Your task to perform on an android device: turn off notifications in google photos Image 0: 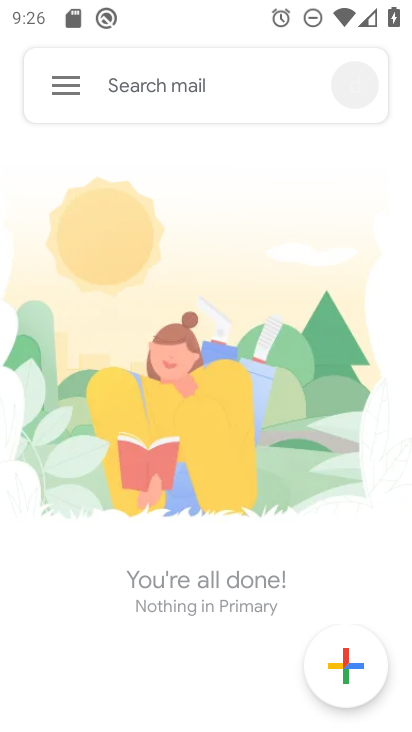
Step 0: press home button
Your task to perform on an android device: turn off notifications in google photos Image 1: 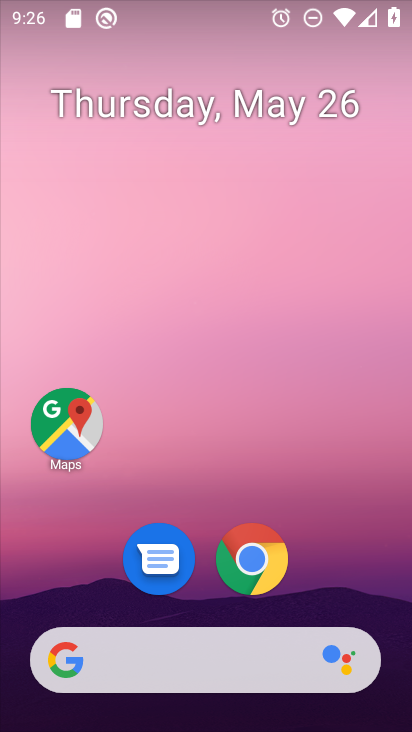
Step 1: drag from (329, 467) to (297, 153)
Your task to perform on an android device: turn off notifications in google photos Image 2: 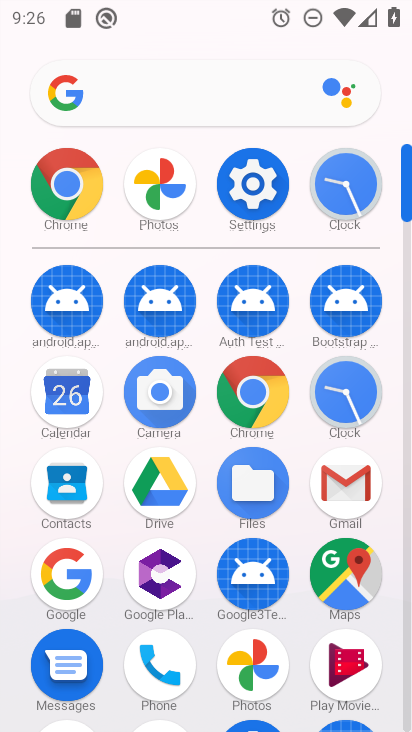
Step 2: drag from (205, 433) to (222, 147)
Your task to perform on an android device: turn off notifications in google photos Image 3: 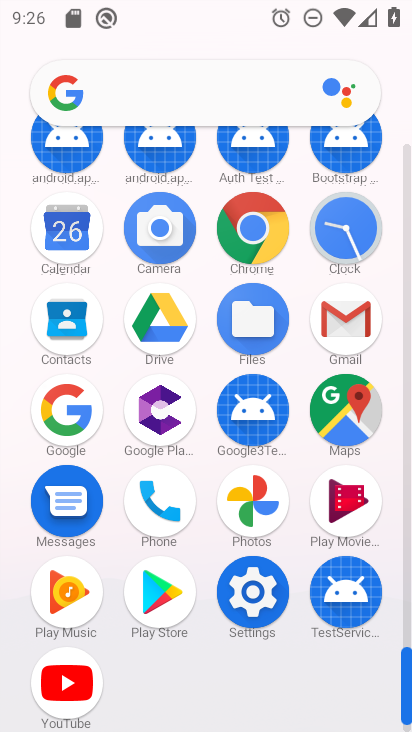
Step 3: click (239, 494)
Your task to perform on an android device: turn off notifications in google photos Image 4: 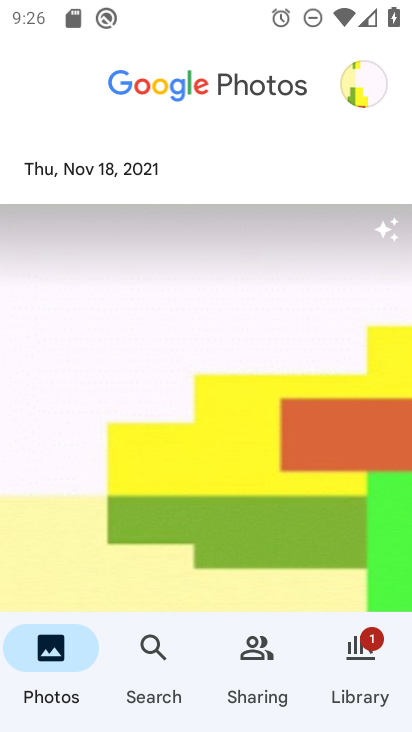
Step 4: click (371, 88)
Your task to perform on an android device: turn off notifications in google photos Image 5: 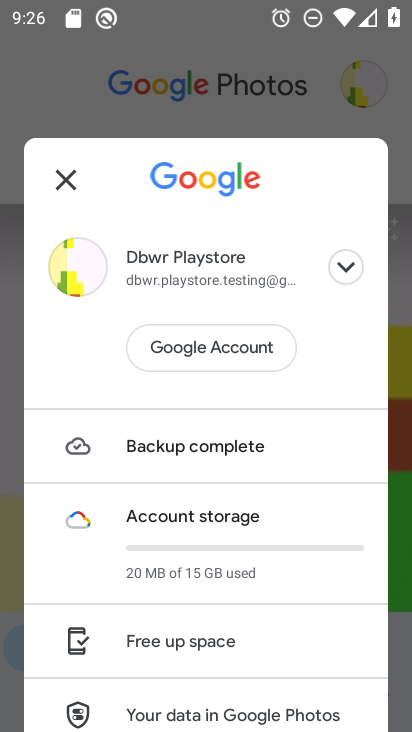
Step 5: drag from (225, 627) to (276, 256)
Your task to perform on an android device: turn off notifications in google photos Image 6: 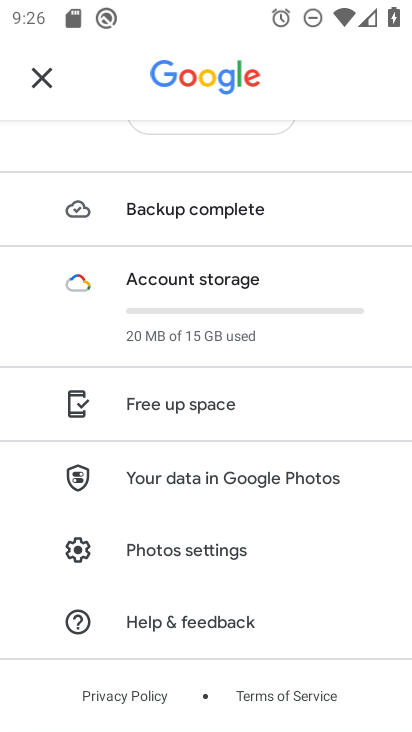
Step 6: click (166, 553)
Your task to perform on an android device: turn off notifications in google photos Image 7: 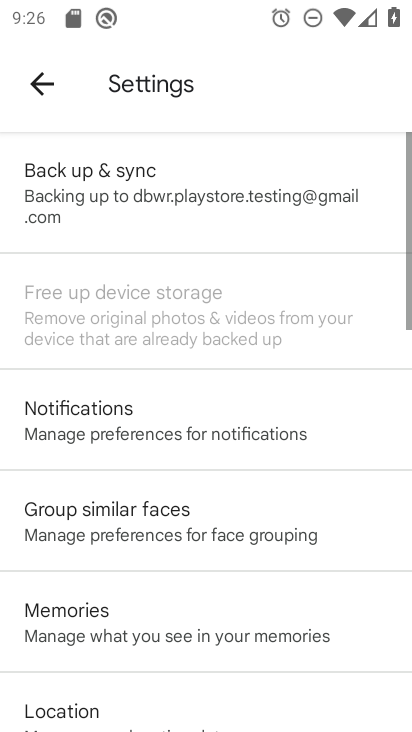
Step 7: click (129, 177)
Your task to perform on an android device: turn off notifications in google photos Image 8: 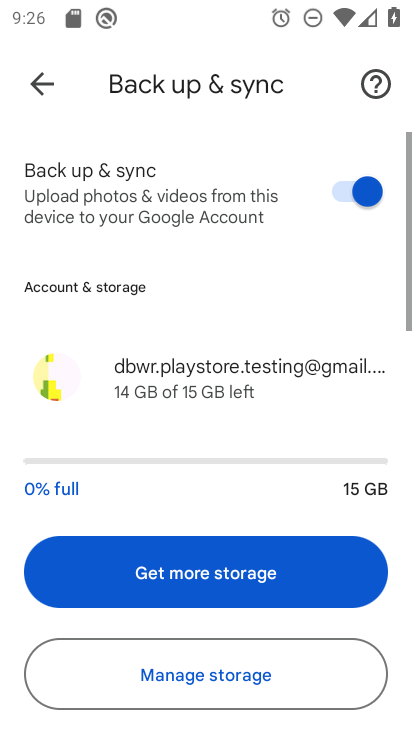
Step 8: press back button
Your task to perform on an android device: turn off notifications in google photos Image 9: 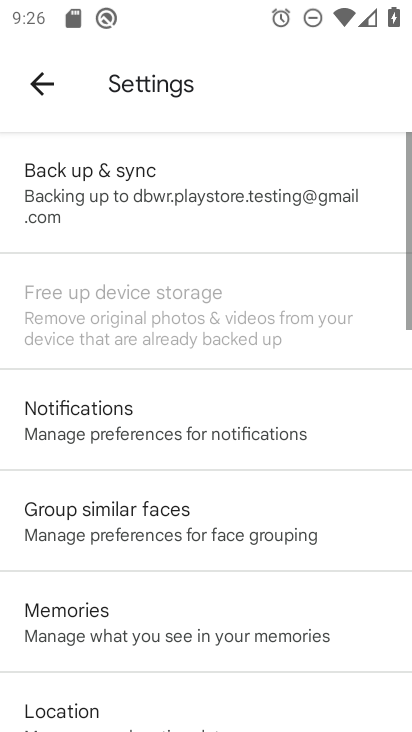
Step 9: click (163, 449)
Your task to perform on an android device: turn off notifications in google photos Image 10: 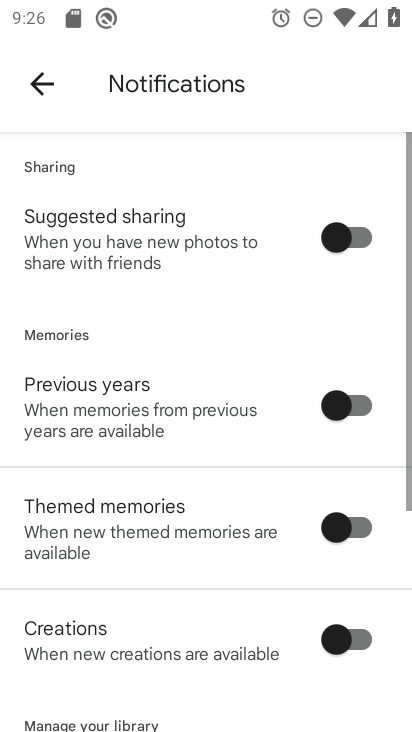
Step 10: drag from (192, 625) to (230, 91)
Your task to perform on an android device: turn off notifications in google photos Image 11: 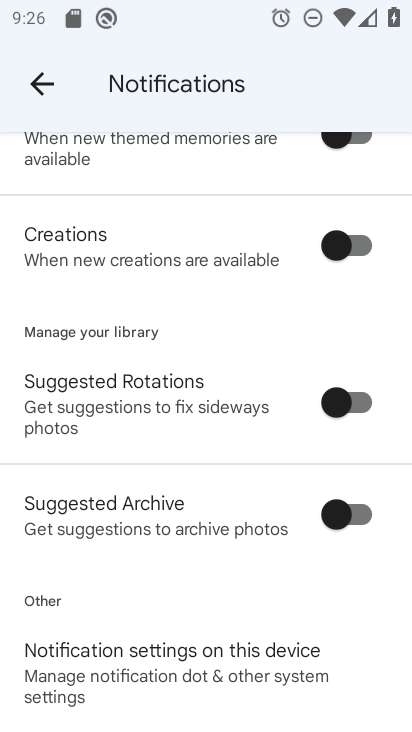
Step 11: click (173, 639)
Your task to perform on an android device: turn off notifications in google photos Image 12: 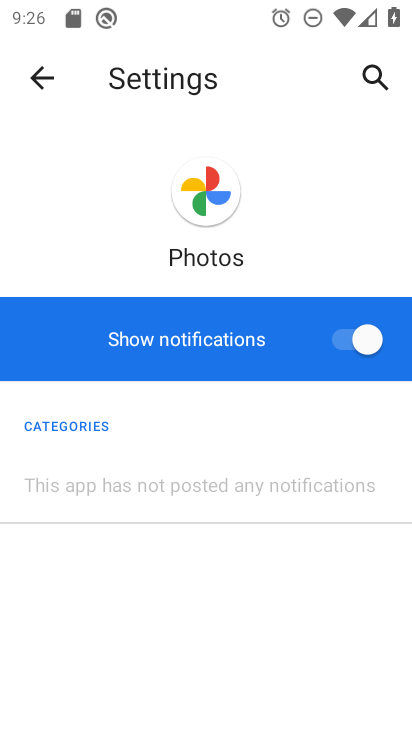
Step 12: click (359, 336)
Your task to perform on an android device: turn off notifications in google photos Image 13: 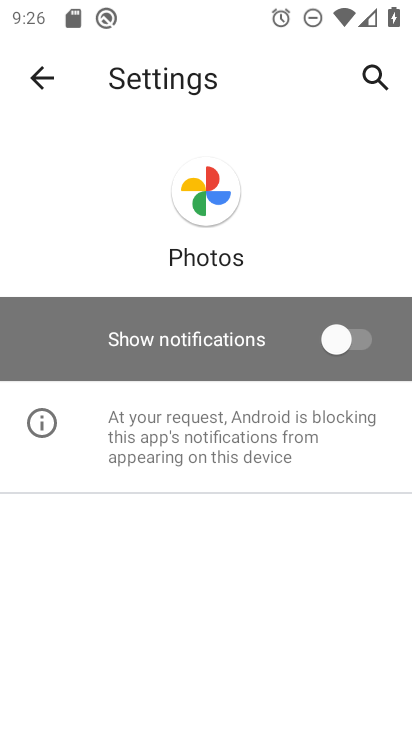
Step 13: task complete